Your task to perform on an android device: Search for seafood restaurants on Google Maps Image 0: 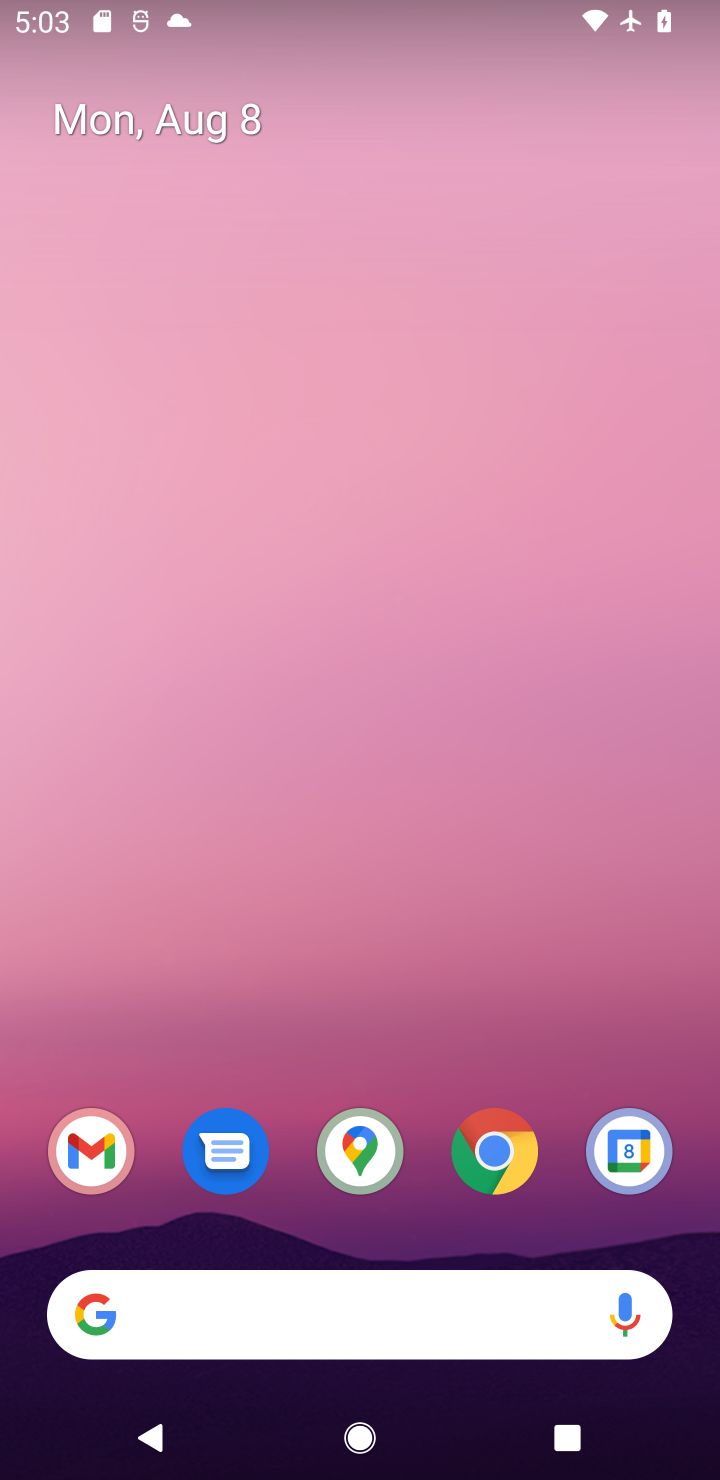
Step 0: click (388, 1146)
Your task to perform on an android device: Search for seafood restaurants on Google Maps Image 1: 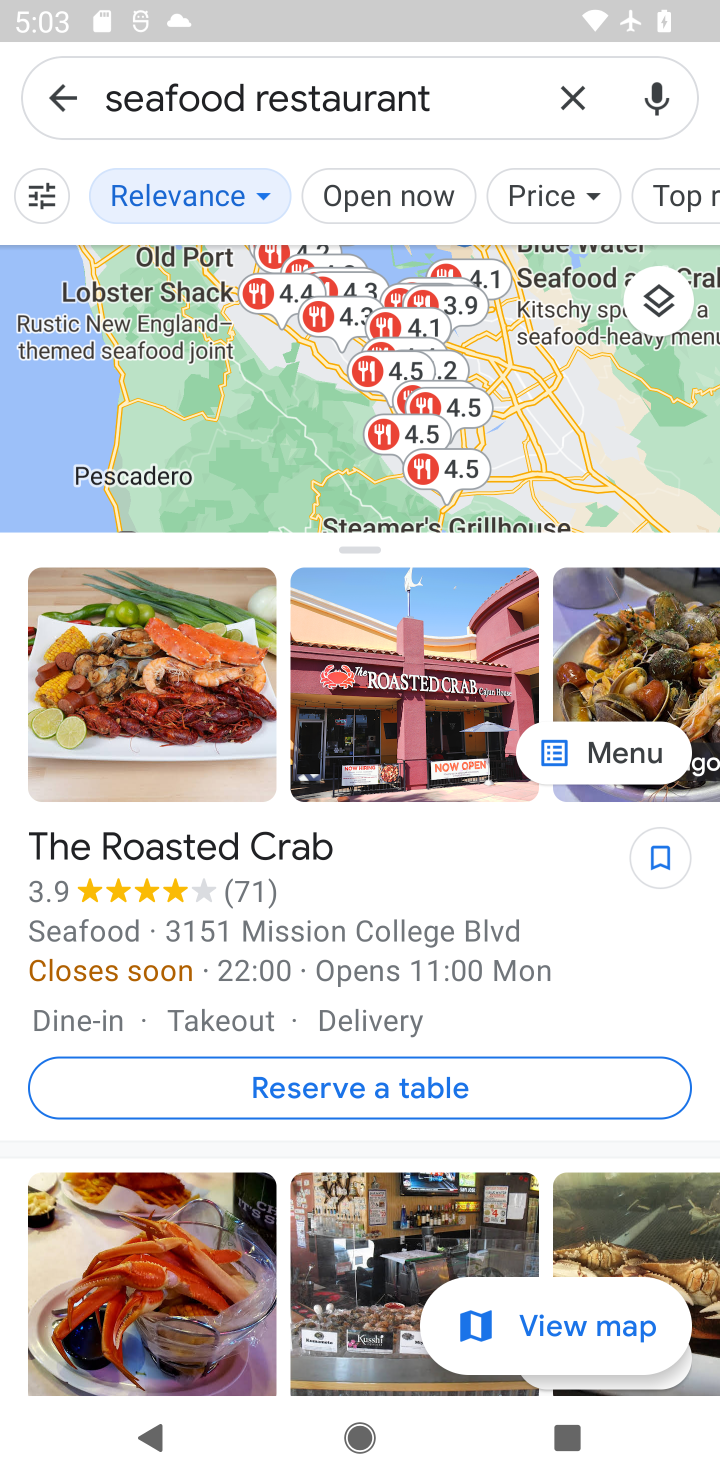
Step 1: task complete